Your task to perform on an android device: Search for the best Mexican restaurants Image 0: 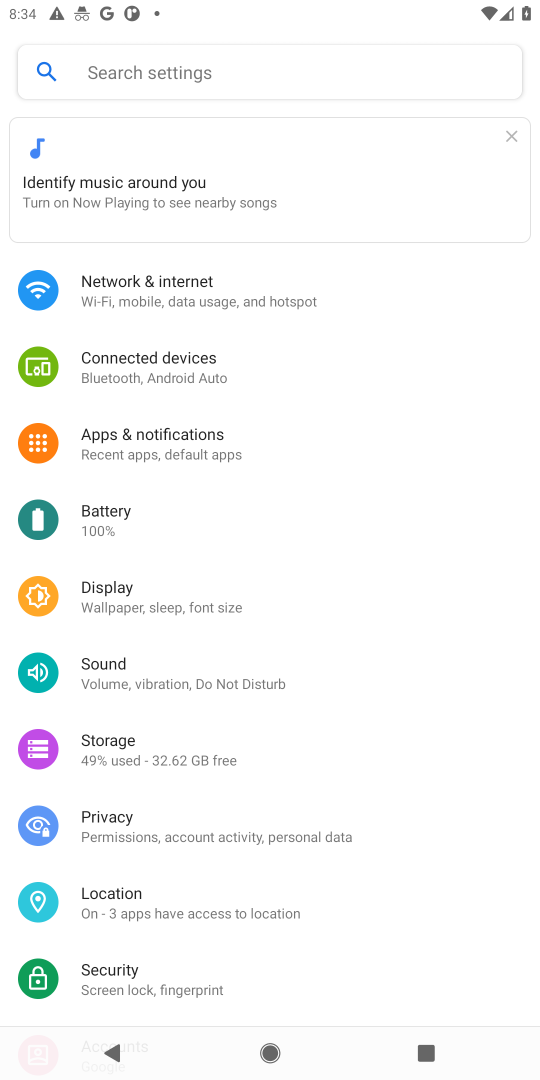
Step 0: press home button
Your task to perform on an android device: Search for the best Mexican restaurants Image 1: 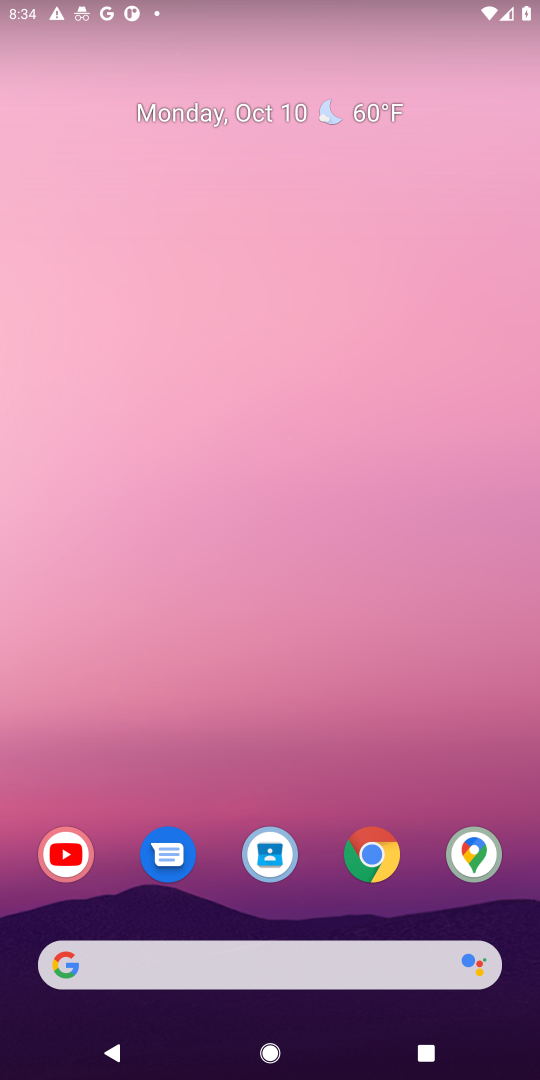
Step 1: click (373, 858)
Your task to perform on an android device: Search for the best Mexican restaurants Image 2: 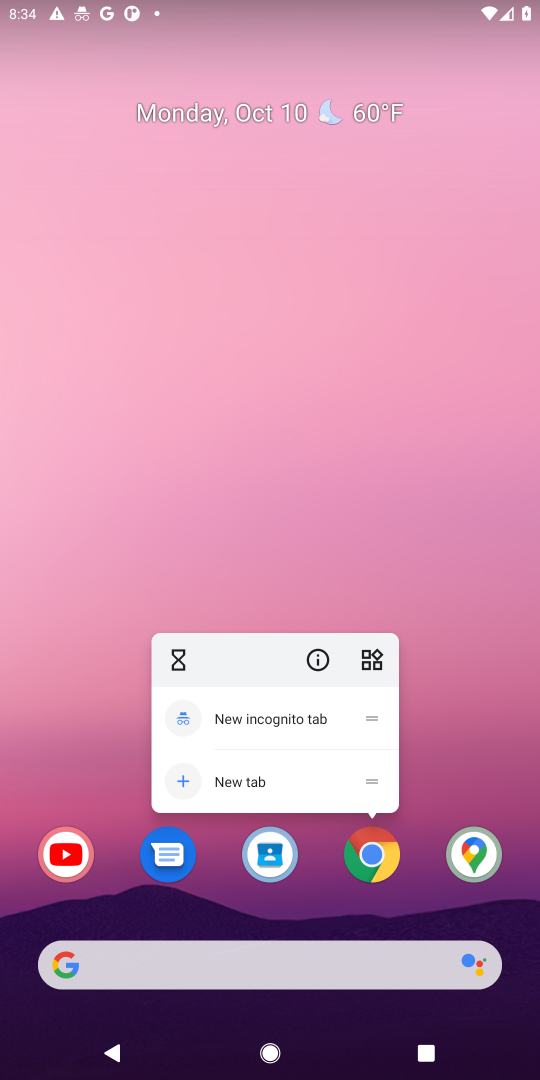
Step 2: click (373, 858)
Your task to perform on an android device: Search for the best Mexican restaurants Image 3: 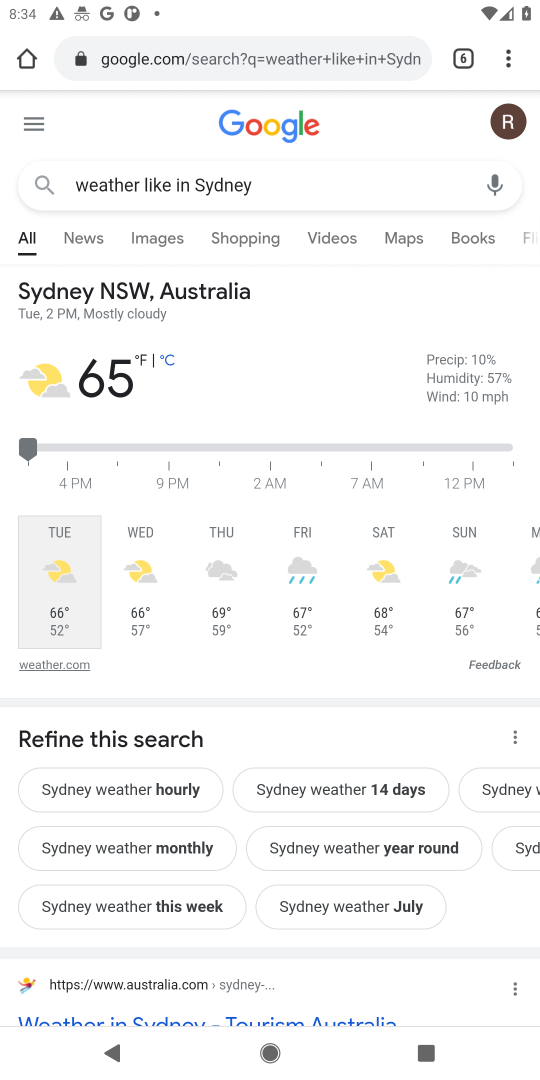
Step 3: click (343, 50)
Your task to perform on an android device: Search for the best Mexican restaurants Image 4: 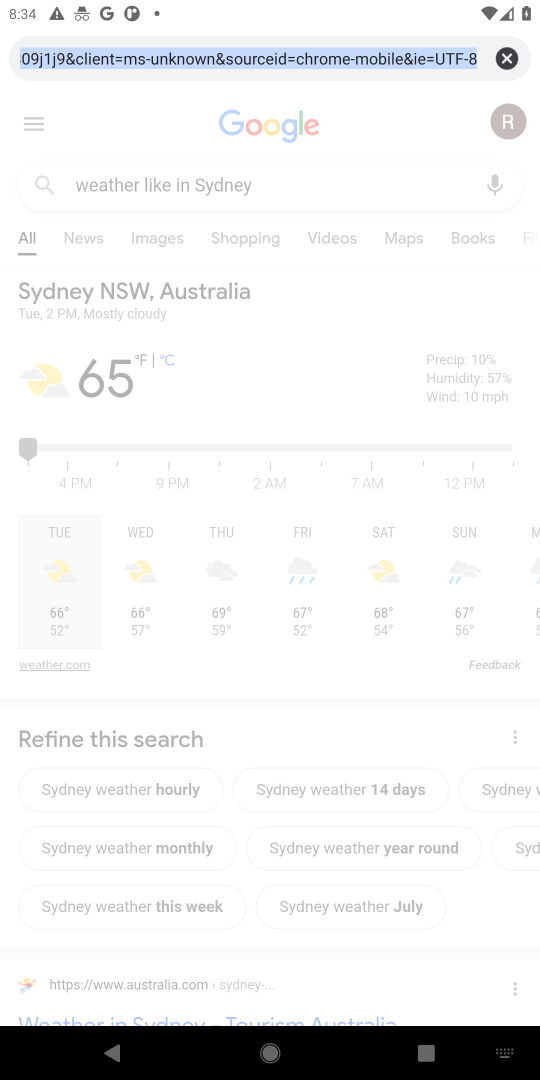
Step 4: click (503, 50)
Your task to perform on an android device: Search for the best Mexican restaurants Image 5: 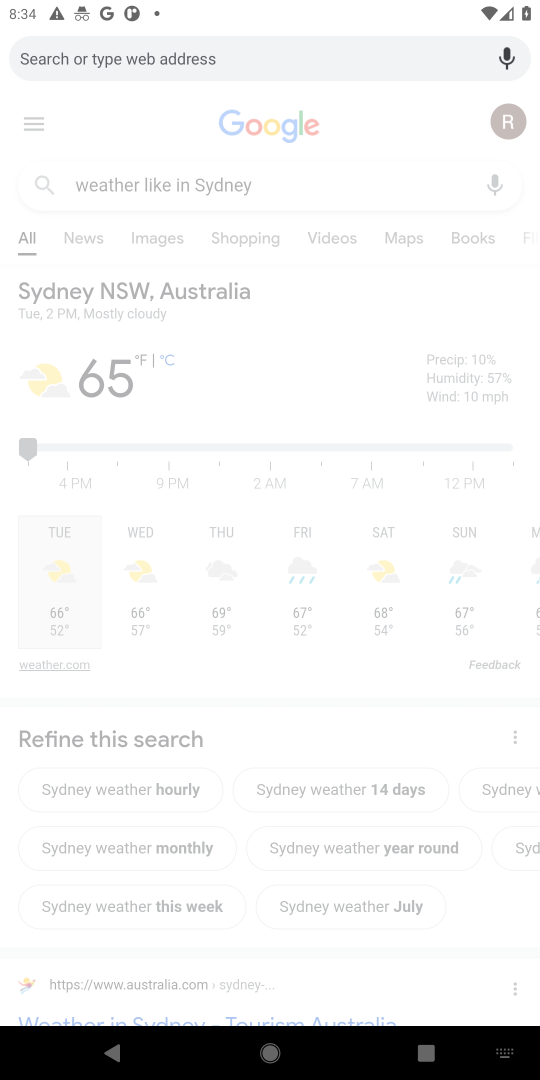
Step 5: type "best Mexican restaurants"
Your task to perform on an android device: Search for the best Mexican restaurants Image 6: 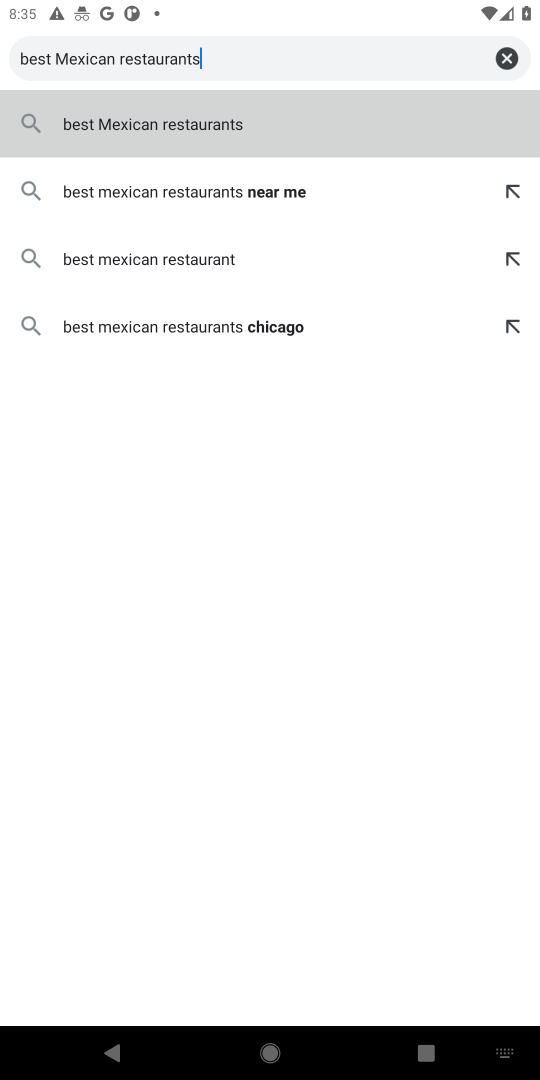
Step 6: click (130, 122)
Your task to perform on an android device: Search for the best Mexican restaurants Image 7: 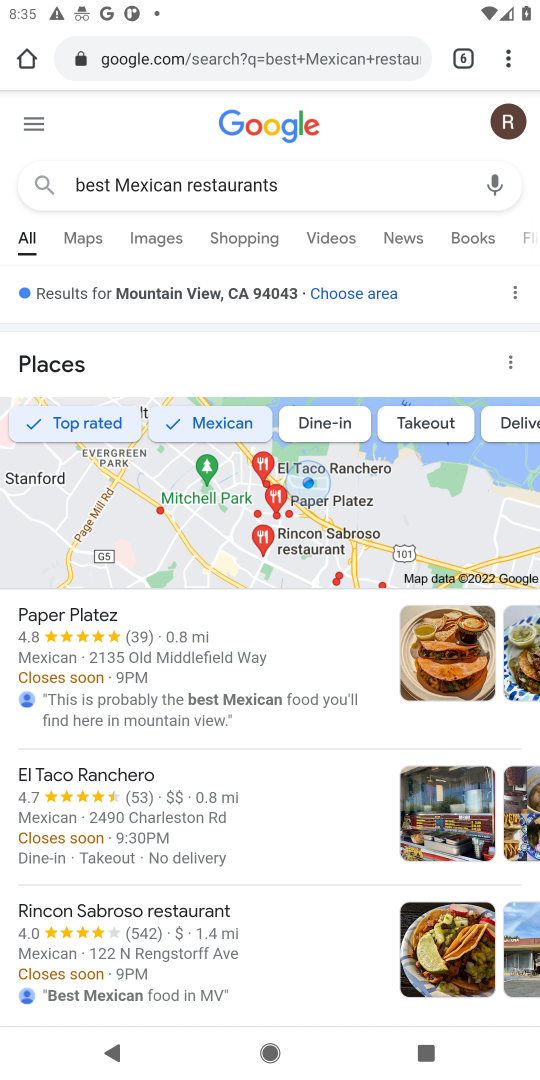
Step 7: drag from (242, 881) to (395, 194)
Your task to perform on an android device: Search for the best Mexican restaurants Image 8: 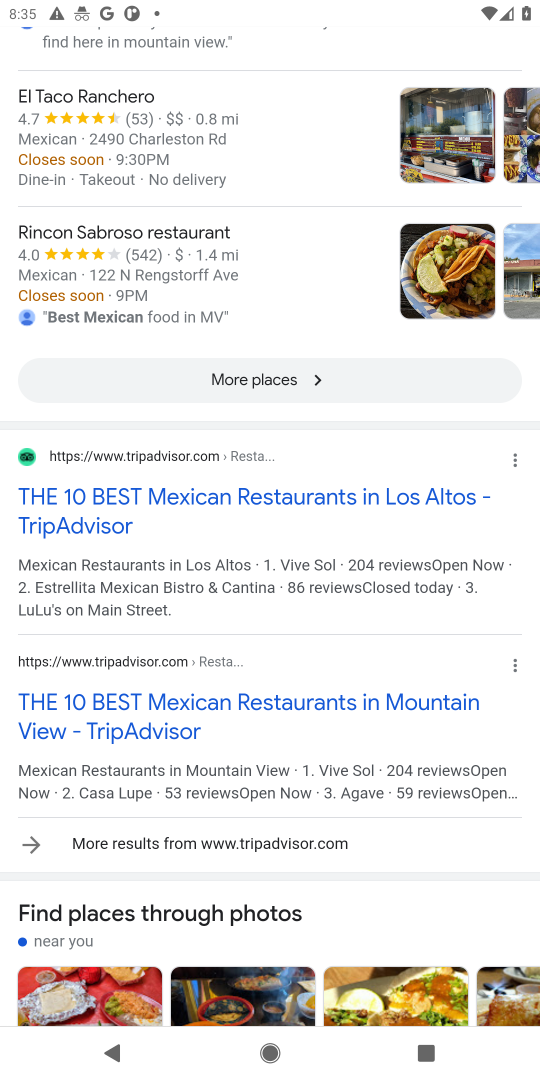
Step 8: click (282, 371)
Your task to perform on an android device: Search for the best Mexican restaurants Image 9: 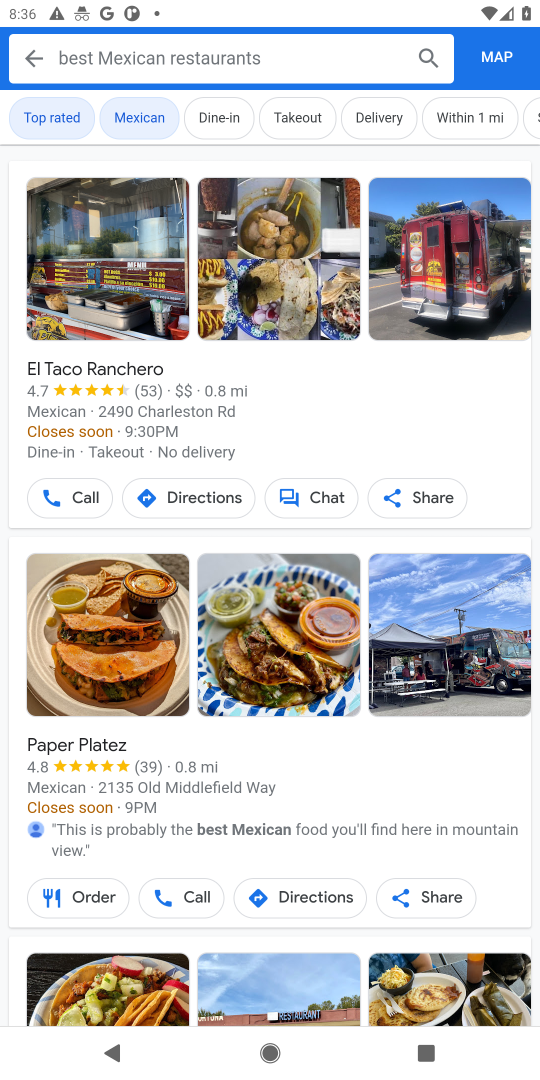
Step 9: task complete